Your task to perform on an android device: Open notification settings Image 0: 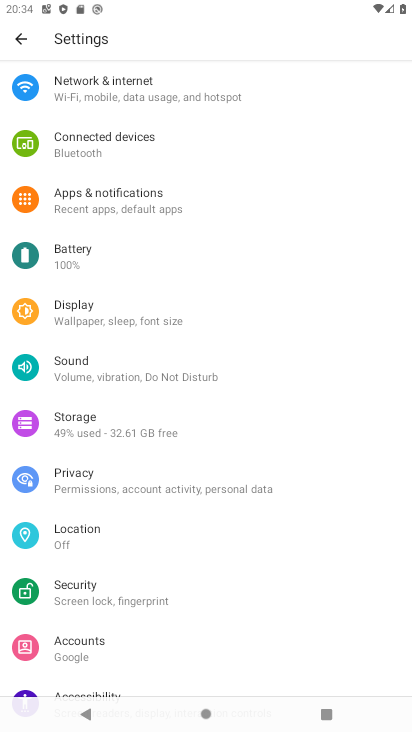
Step 0: click (159, 206)
Your task to perform on an android device: Open notification settings Image 1: 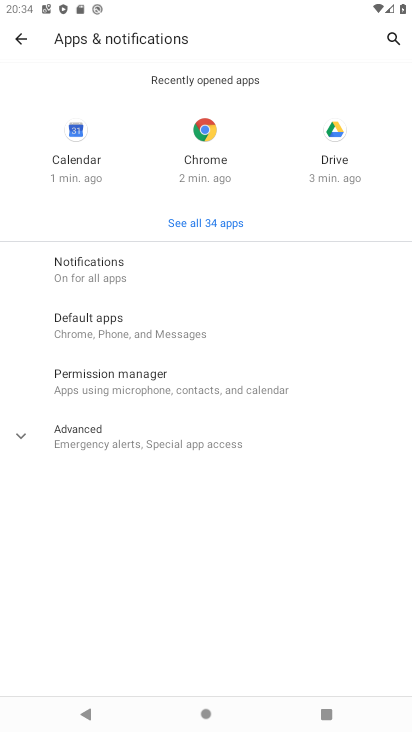
Step 1: task complete